Your task to perform on an android device: Open Youtube and go to the subscriptions tab Image 0: 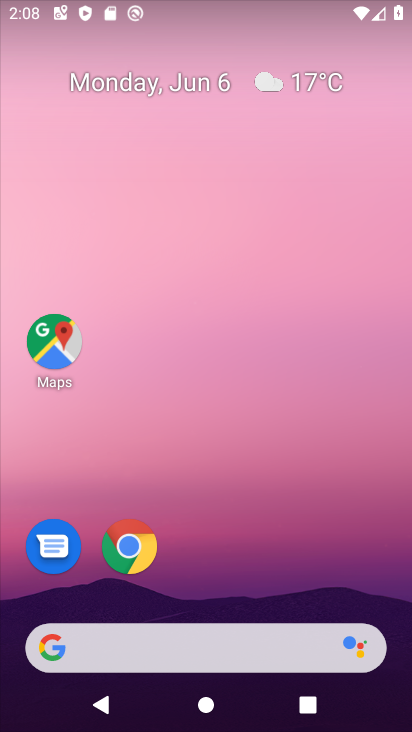
Step 0: drag from (252, 574) to (270, 80)
Your task to perform on an android device: Open Youtube and go to the subscriptions tab Image 1: 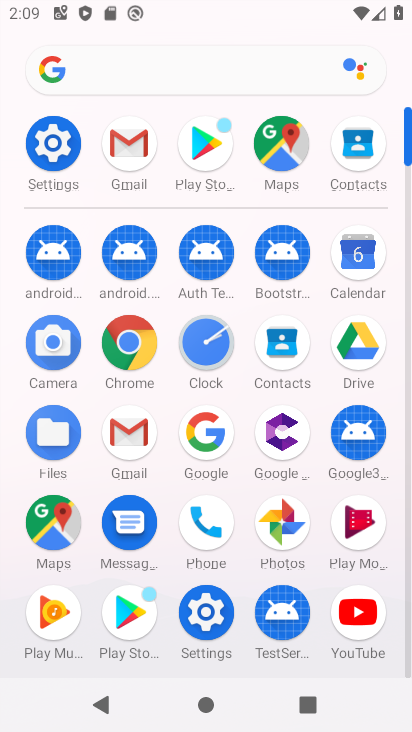
Step 1: click (350, 639)
Your task to perform on an android device: Open Youtube and go to the subscriptions tab Image 2: 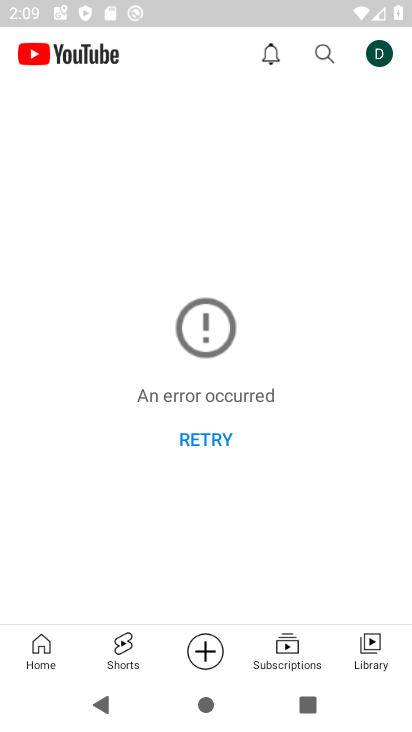
Step 2: click (275, 630)
Your task to perform on an android device: Open Youtube and go to the subscriptions tab Image 3: 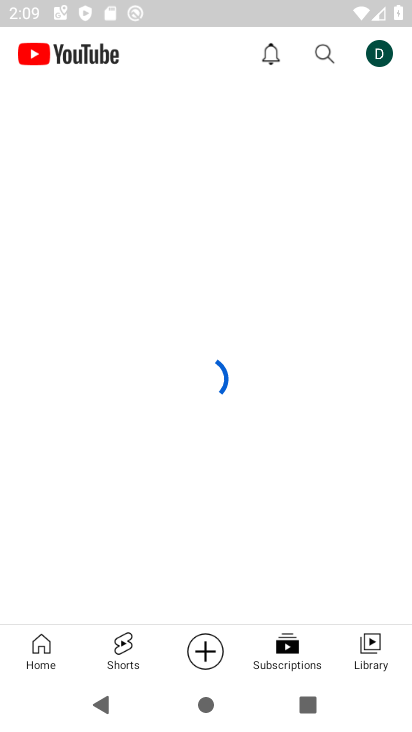
Step 3: task complete